Your task to perform on an android device: set default search engine in the chrome app Image 0: 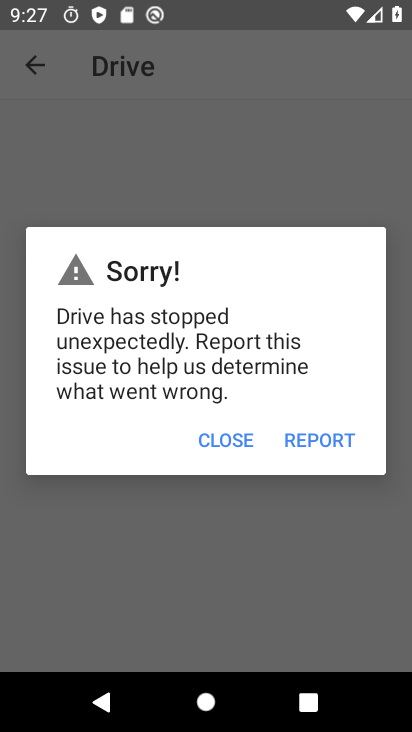
Step 0: press home button
Your task to perform on an android device: set default search engine in the chrome app Image 1: 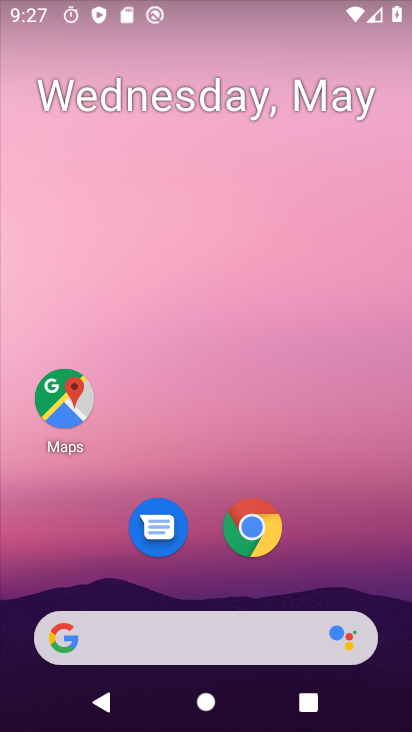
Step 1: click (239, 525)
Your task to perform on an android device: set default search engine in the chrome app Image 2: 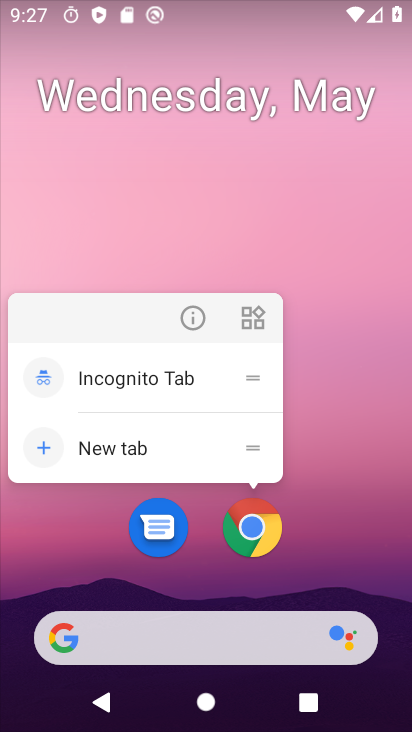
Step 2: click (259, 528)
Your task to perform on an android device: set default search engine in the chrome app Image 3: 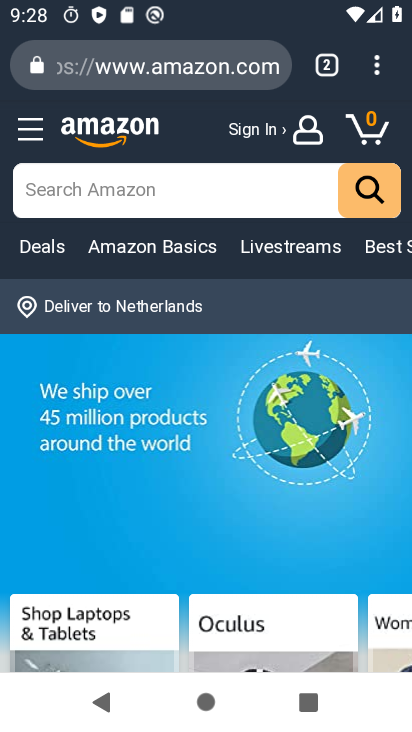
Step 3: drag from (377, 61) to (149, 572)
Your task to perform on an android device: set default search engine in the chrome app Image 4: 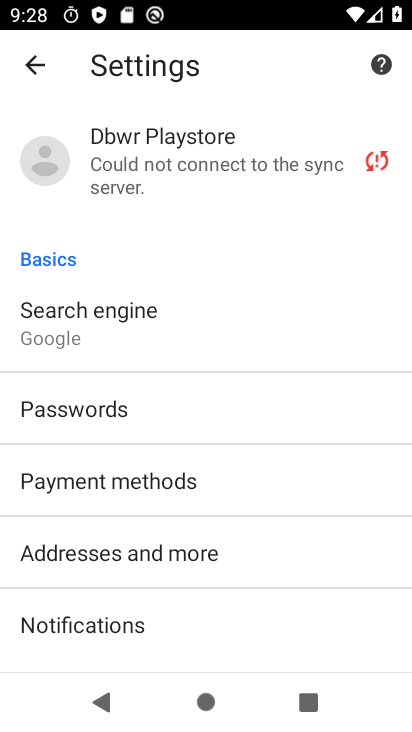
Step 4: click (92, 318)
Your task to perform on an android device: set default search engine in the chrome app Image 5: 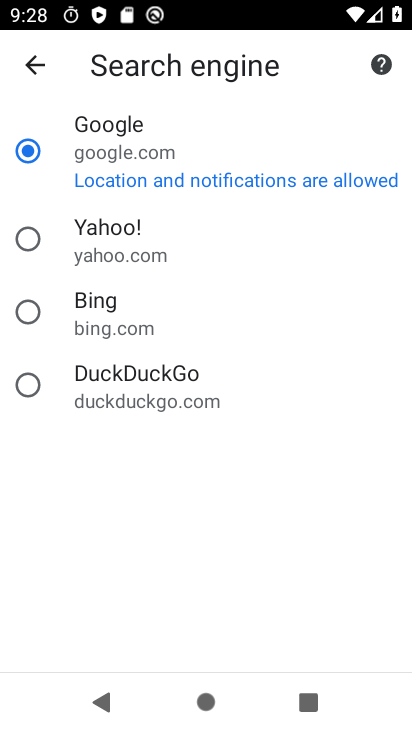
Step 5: task complete